Your task to perform on an android device: Show me recent news Image 0: 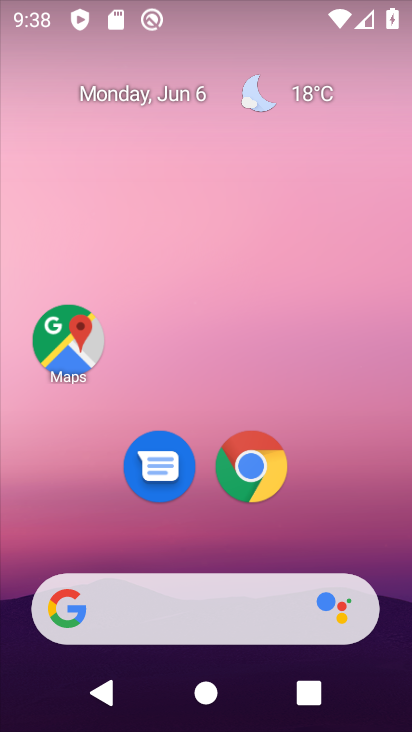
Step 0: click (342, 357)
Your task to perform on an android device: Show me recent news Image 1: 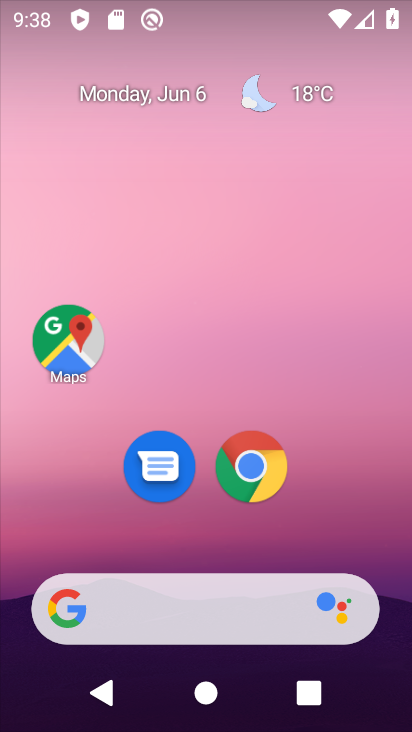
Step 1: click (389, 312)
Your task to perform on an android device: Show me recent news Image 2: 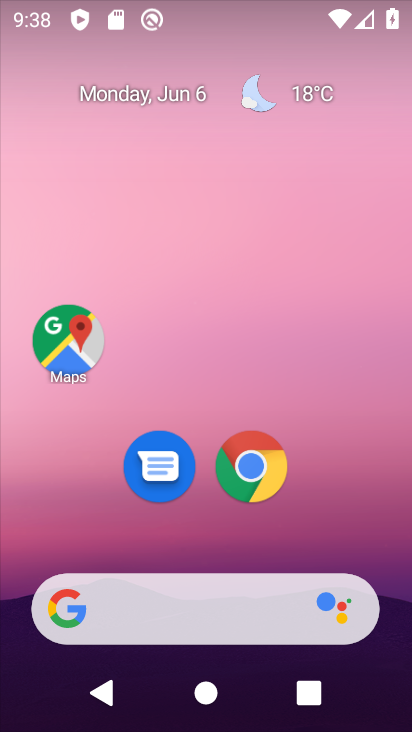
Step 2: click (410, 337)
Your task to perform on an android device: Show me recent news Image 3: 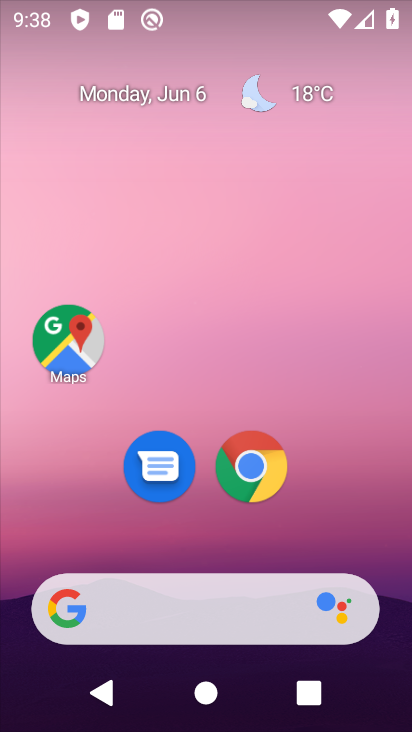
Step 3: click (272, 214)
Your task to perform on an android device: Show me recent news Image 4: 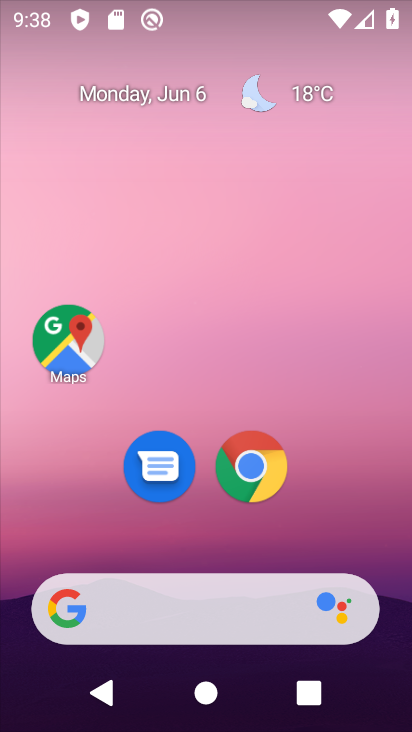
Step 4: task complete